Your task to perform on an android device: refresh tabs in the chrome app Image 0: 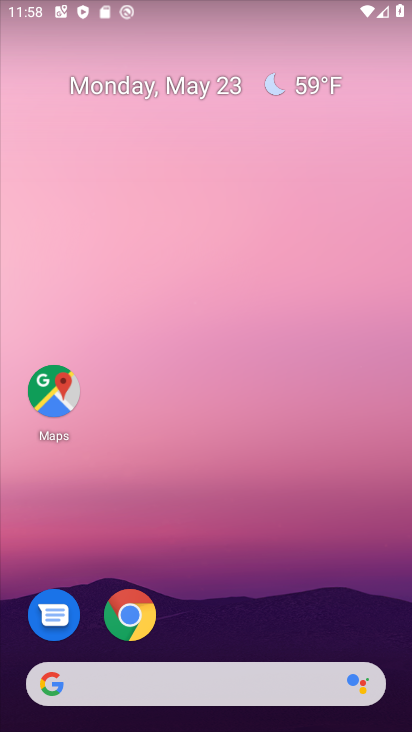
Step 0: drag from (265, 584) to (259, 61)
Your task to perform on an android device: refresh tabs in the chrome app Image 1: 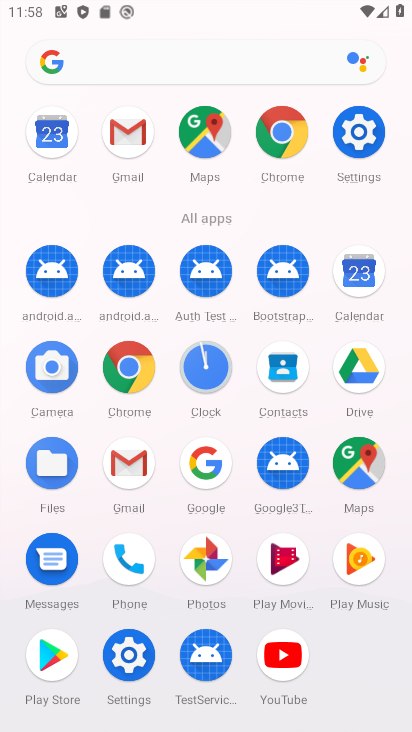
Step 1: drag from (15, 572) to (13, 203)
Your task to perform on an android device: refresh tabs in the chrome app Image 2: 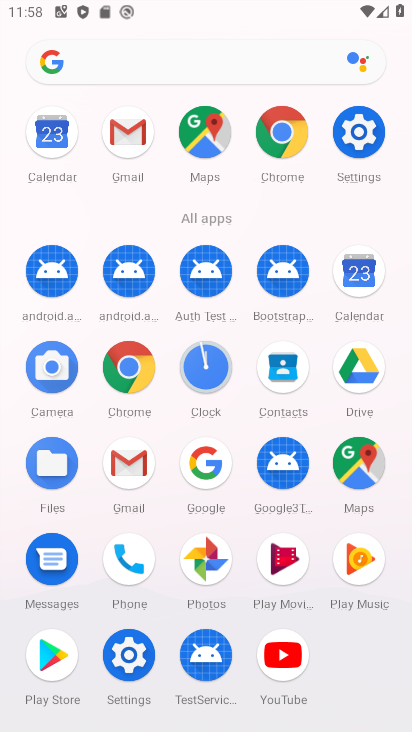
Step 2: click (128, 366)
Your task to perform on an android device: refresh tabs in the chrome app Image 3: 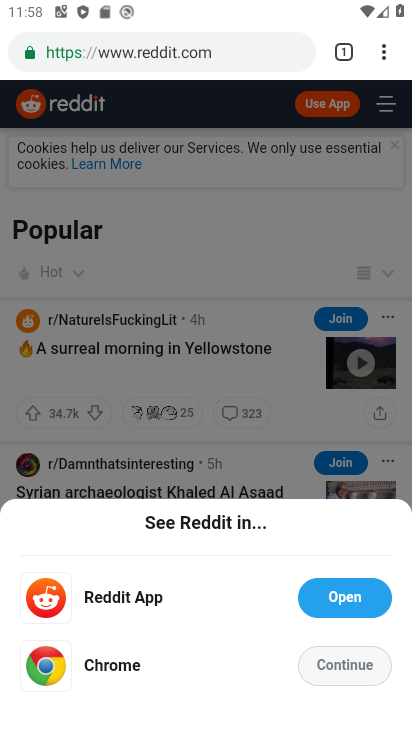
Step 3: click (388, 55)
Your task to perform on an android device: refresh tabs in the chrome app Image 4: 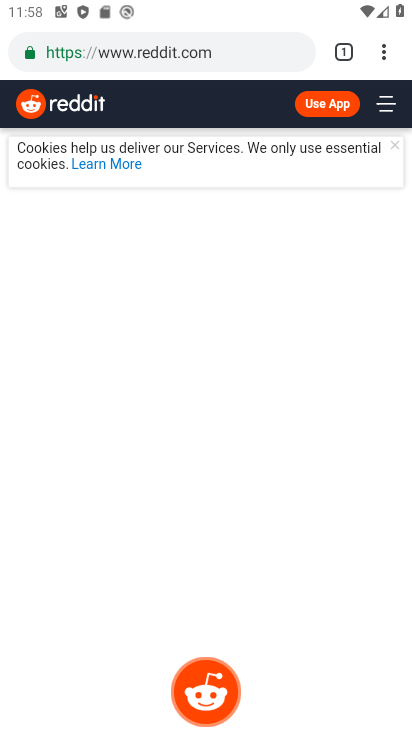
Step 4: task complete